Your task to perform on an android device: turn off sleep mode Image 0: 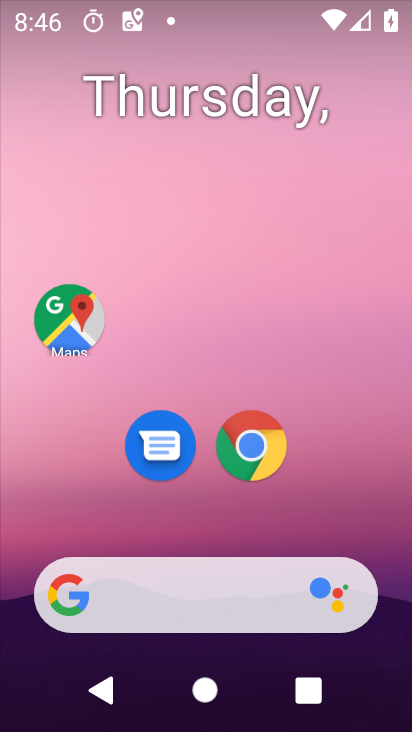
Step 0: drag from (48, 602) to (238, 131)
Your task to perform on an android device: turn off sleep mode Image 1: 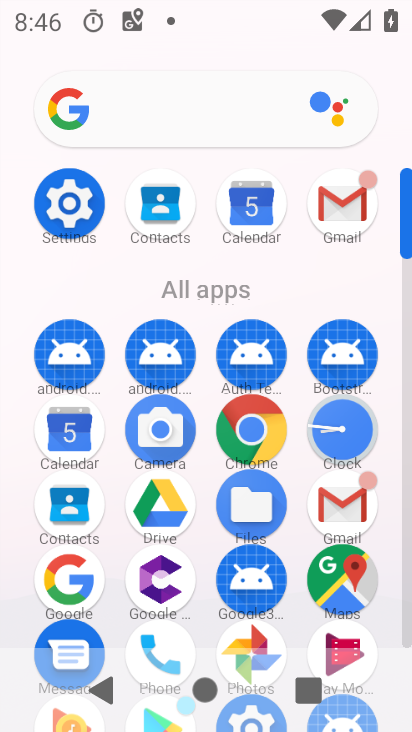
Step 1: click (53, 211)
Your task to perform on an android device: turn off sleep mode Image 2: 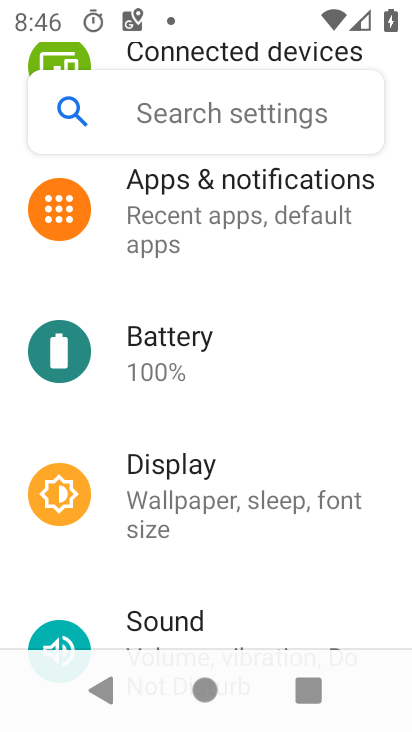
Step 2: click (121, 505)
Your task to perform on an android device: turn off sleep mode Image 3: 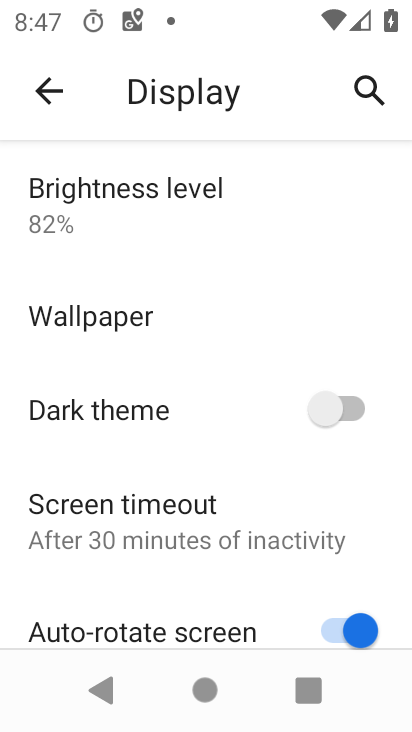
Step 3: task complete